Your task to perform on an android device: turn off translation in the chrome app Image 0: 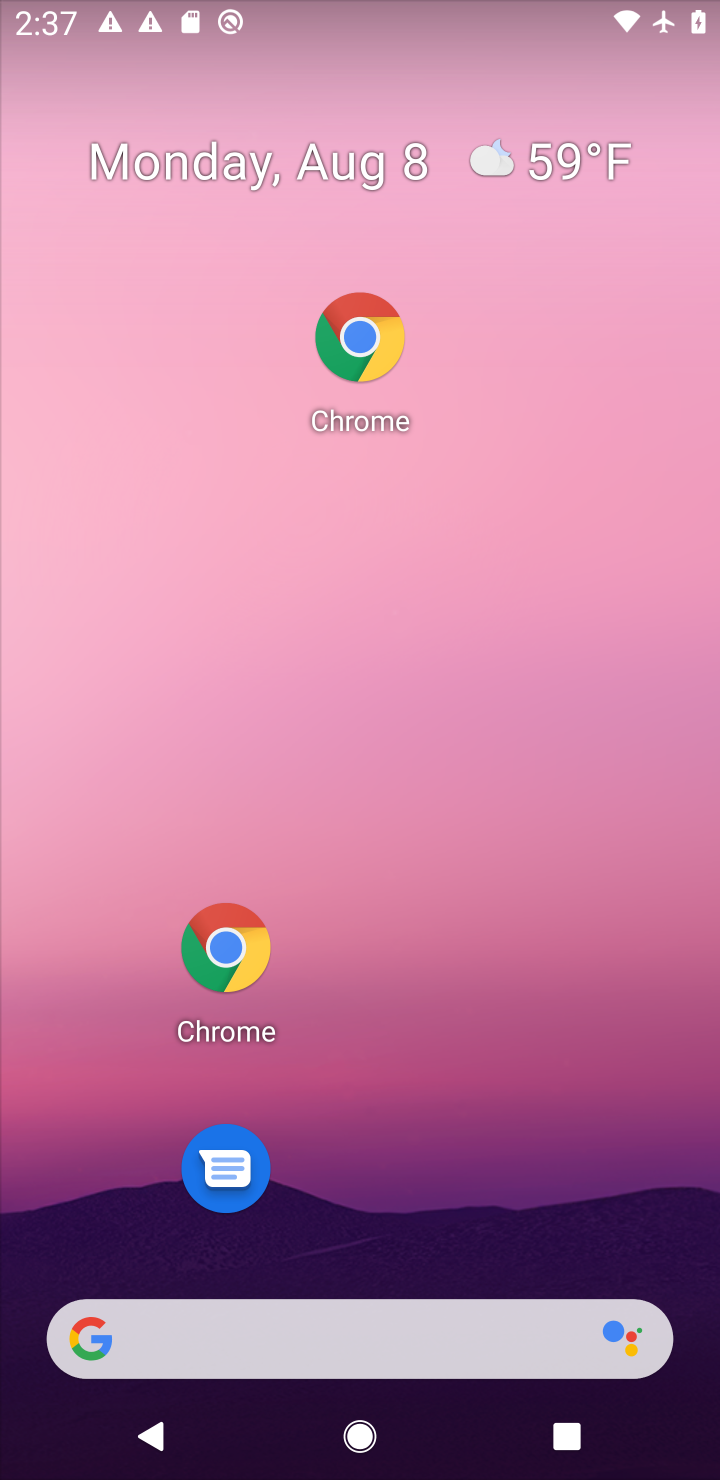
Step 0: click (220, 1027)
Your task to perform on an android device: turn off translation in the chrome app Image 1: 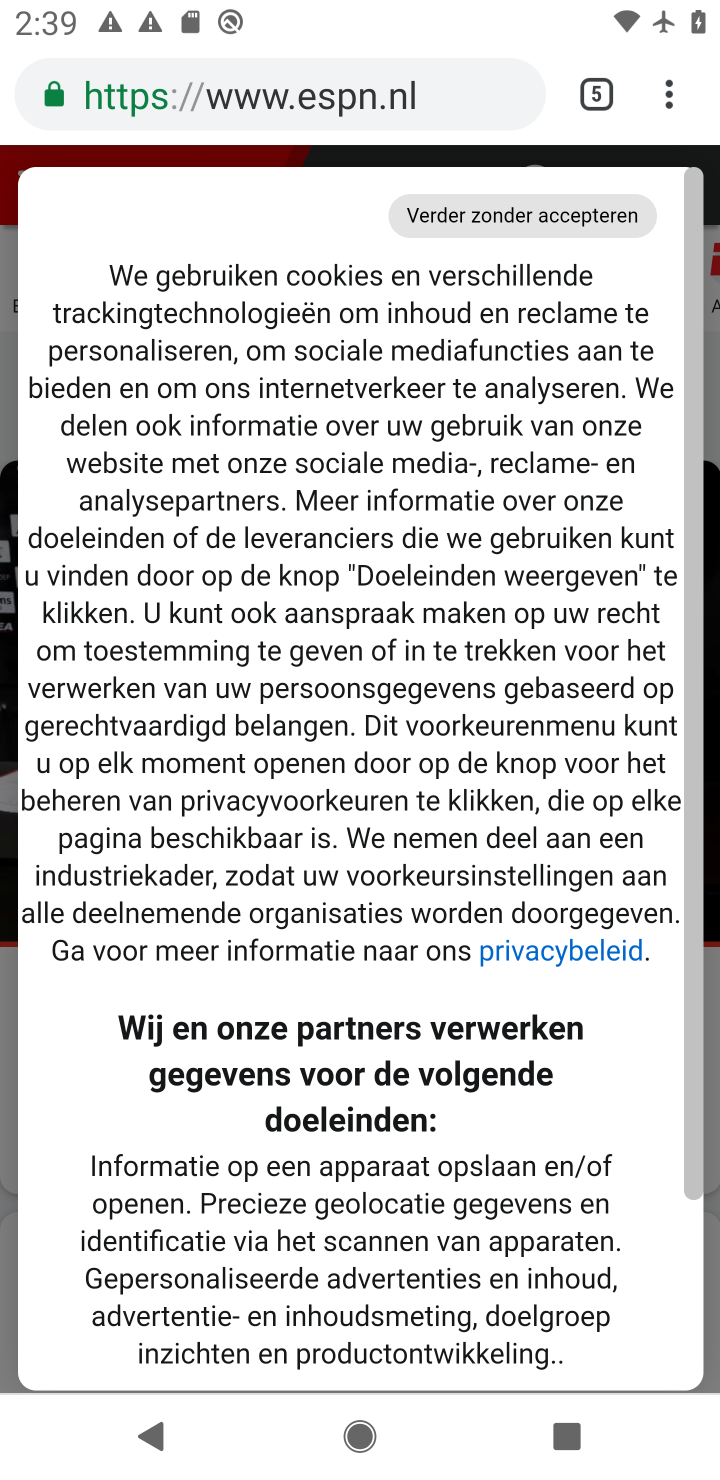
Step 1: click (220, 1027)
Your task to perform on an android device: turn off translation in the chrome app Image 2: 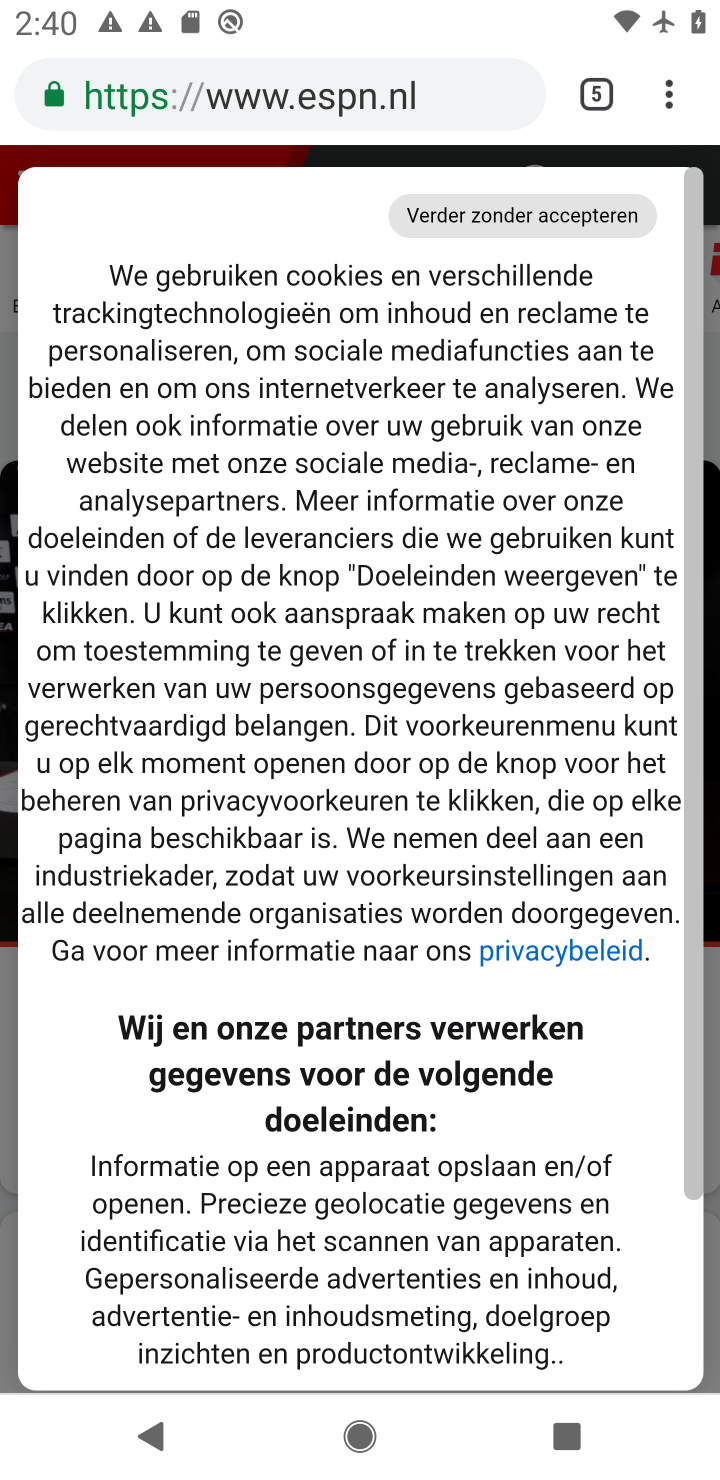
Step 2: click (655, 79)
Your task to perform on an android device: turn off translation in the chrome app Image 3: 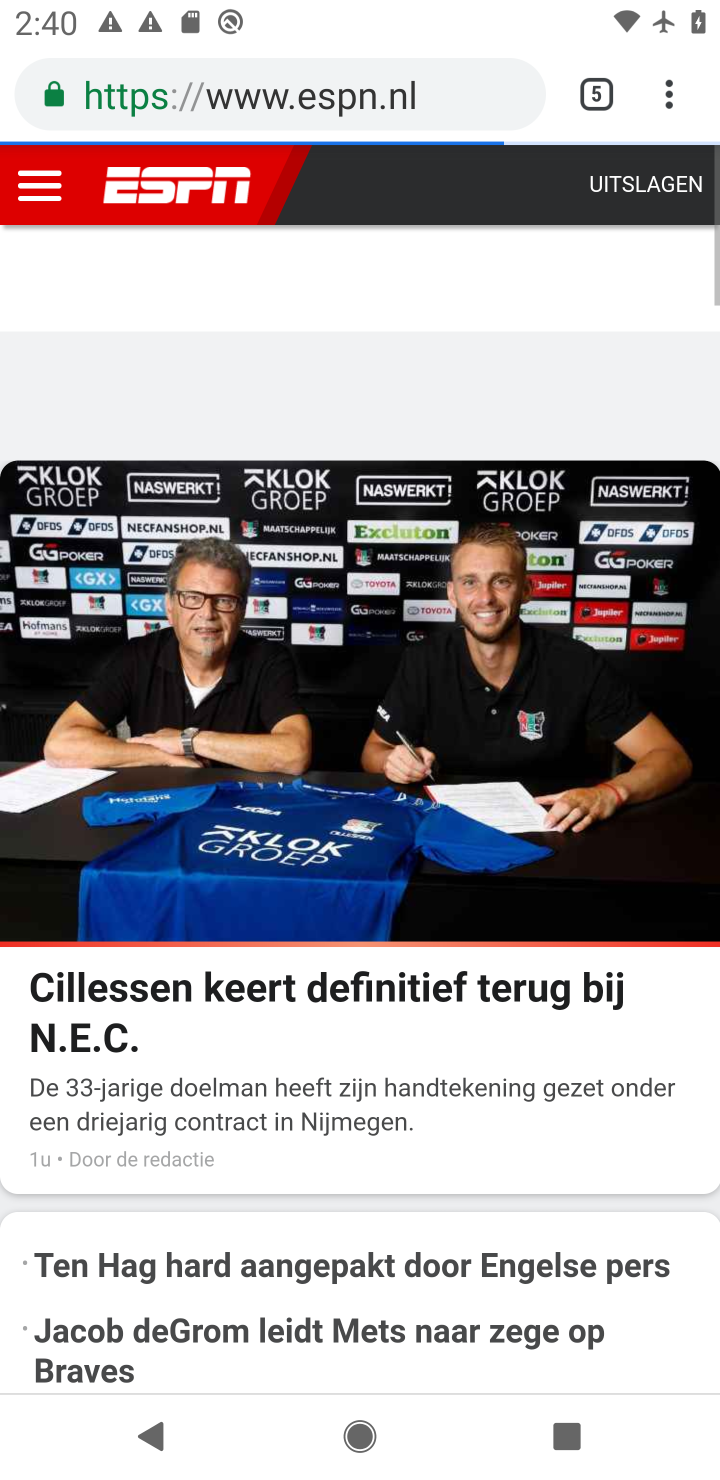
Step 3: click (655, 115)
Your task to perform on an android device: turn off translation in the chrome app Image 4: 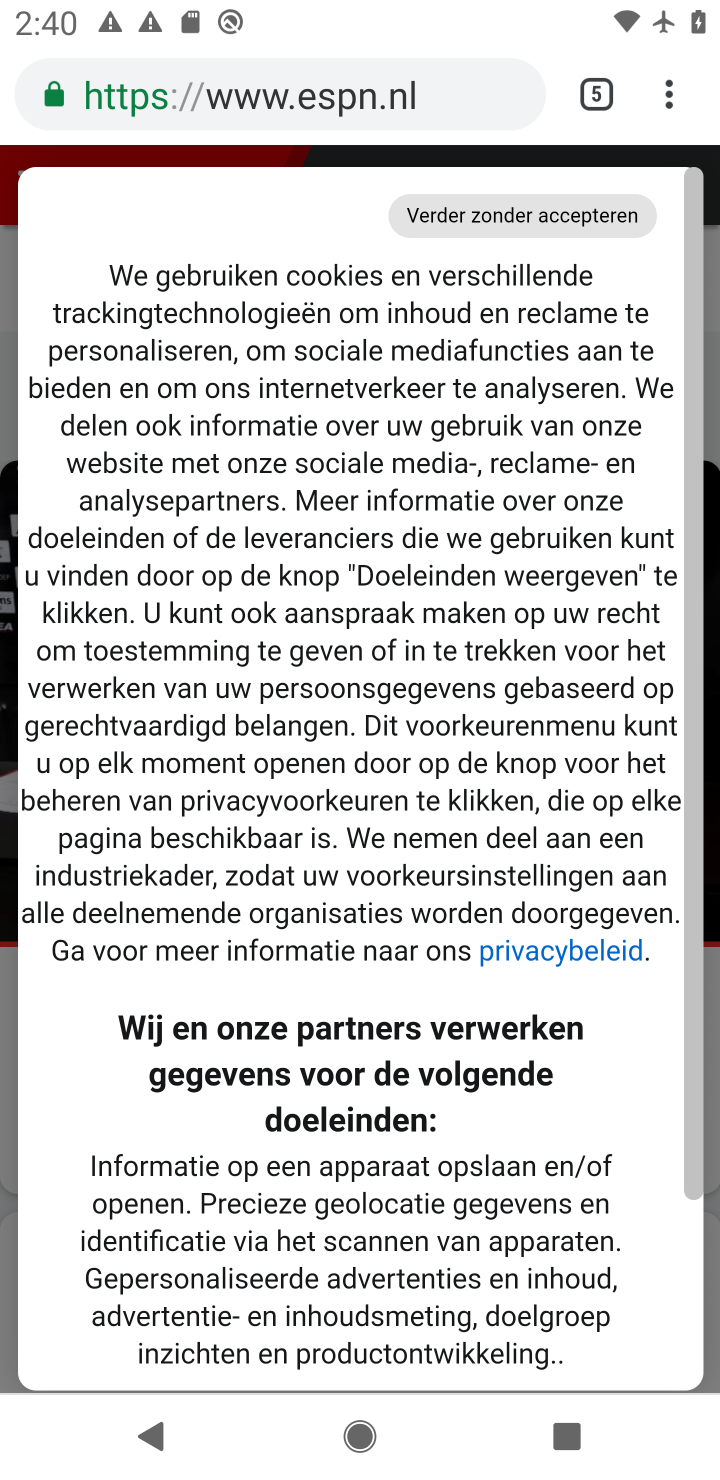
Step 4: task complete